Your task to perform on an android device: Go to network settings Image 0: 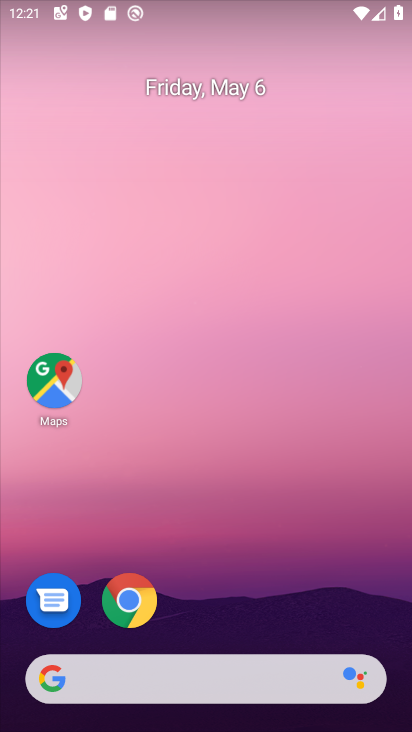
Step 0: drag from (348, 623) to (283, 104)
Your task to perform on an android device: Go to network settings Image 1: 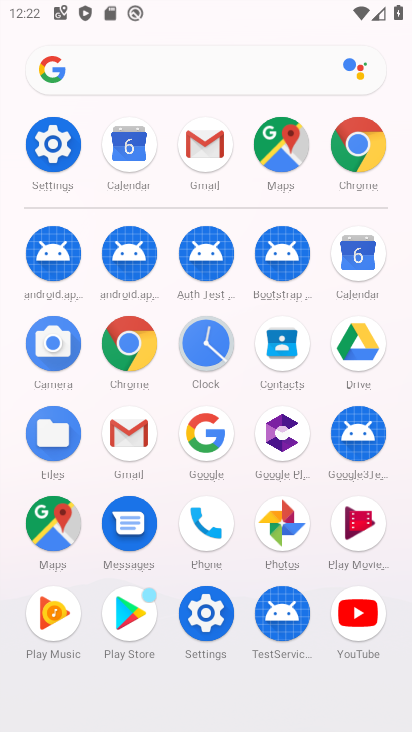
Step 1: click (53, 144)
Your task to perform on an android device: Go to network settings Image 2: 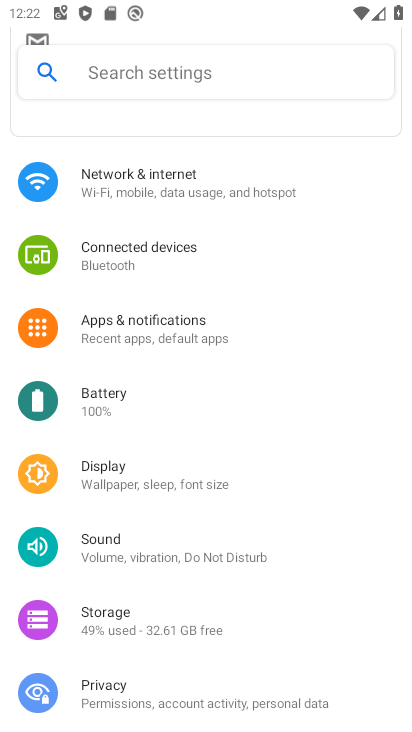
Step 2: click (186, 195)
Your task to perform on an android device: Go to network settings Image 3: 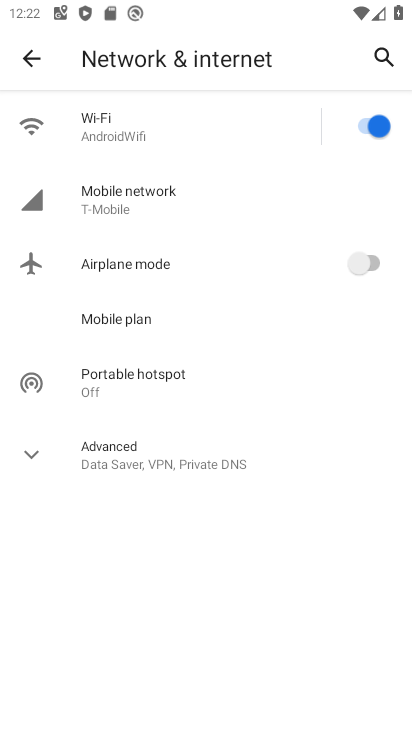
Step 3: click (183, 189)
Your task to perform on an android device: Go to network settings Image 4: 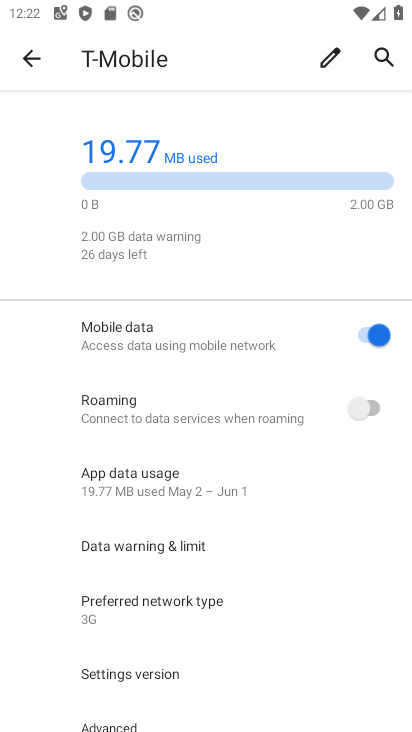
Step 4: task complete